Your task to perform on an android device: open chrome and create a bookmark for the current page Image 0: 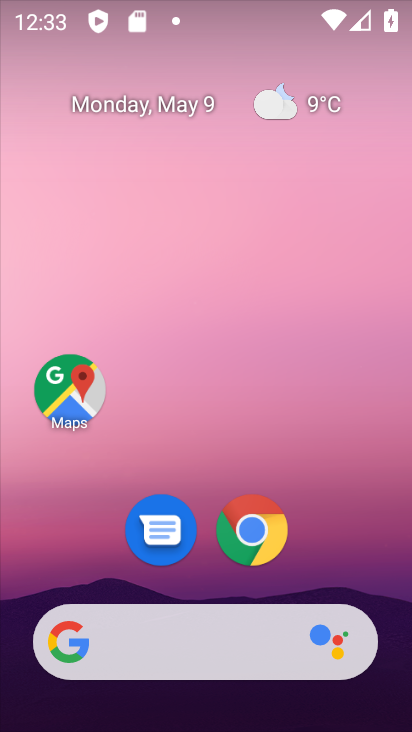
Step 0: drag from (330, 474) to (323, 181)
Your task to perform on an android device: open chrome and create a bookmark for the current page Image 1: 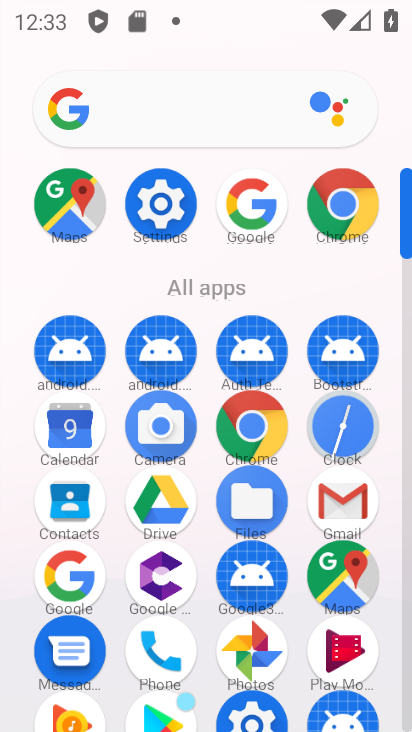
Step 1: click (254, 428)
Your task to perform on an android device: open chrome and create a bookmark for the current page Image 2: 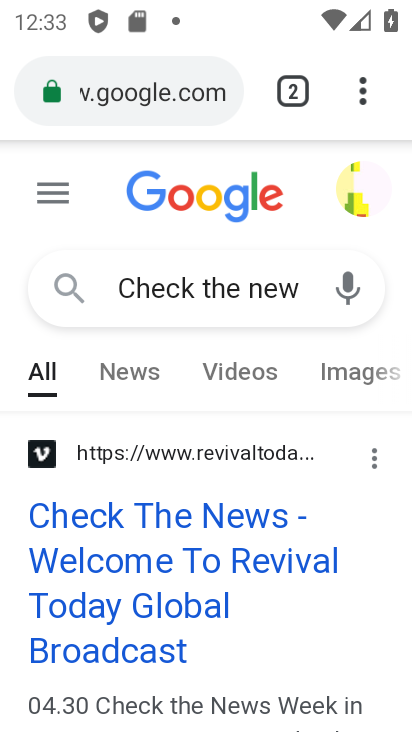
Step 2: click (347, 90)
Your task to perform on an android device: open chrome and create a bookmark for the current page Image 3: 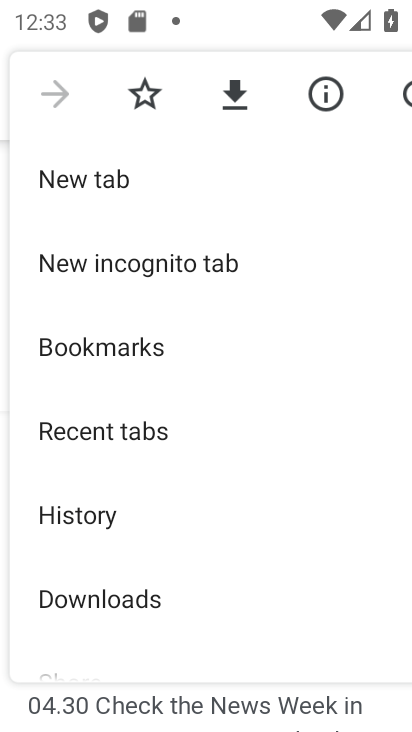
Step 3: click (146, 91)
Your task to perform on an android device: open chrome and create a bookmark for the current page Image 4: 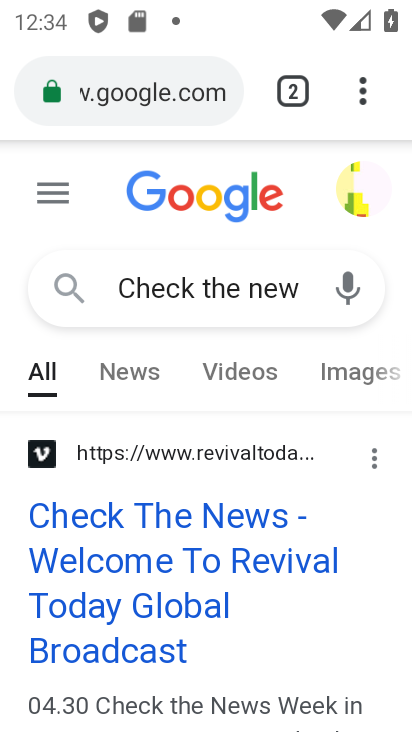
Step 4: task complete